Your task to perform on an android device: Open Yahoo.com Image 0: 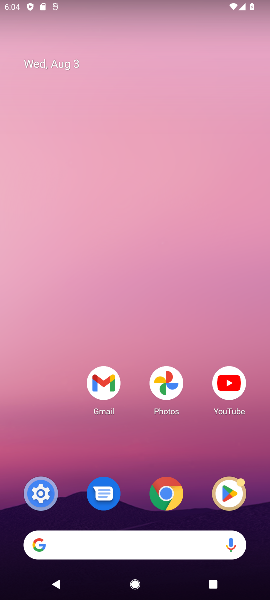
Step 0: click (164, 497)
Your task to perform on an android device: Open Yahoo.com Image 1: 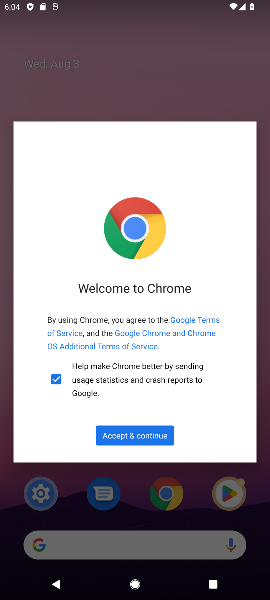
Step 1: click (130, 434)
Your task to perform on an android device: Open Yahoo.com Image 2: 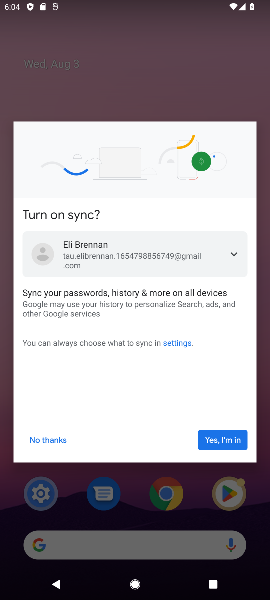
Step 2: click (223, 437)
Your task to perform on an android device: Open Yahoo.com Image 3: 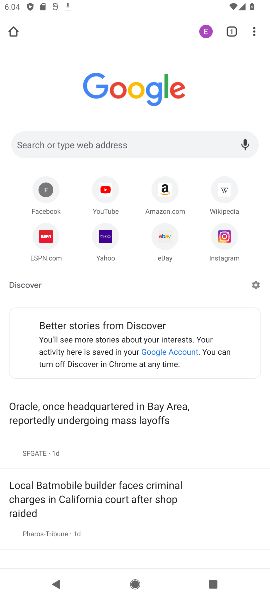
Step 3: click (104, 239)
Your task to perform on an android device: Open Yahoo.com Image 4: 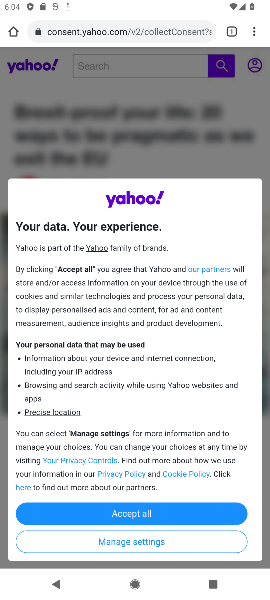
Step 4: click (133, 515)
Your task to perform on an android device: Open Yahoo.com Image 5: 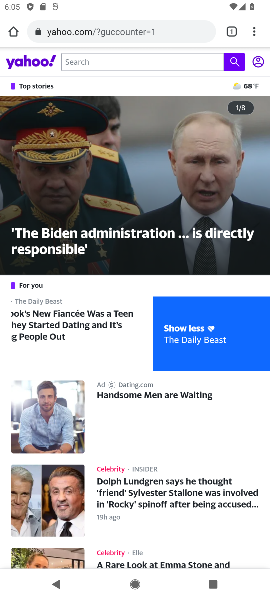
Step 5: task complete